Your task to perform on an android device: Go to network settings Image 0: 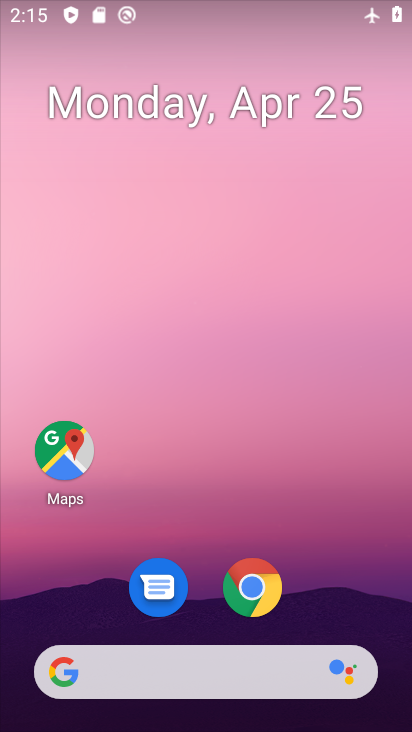
Step 0: click (292, 537)
Your task to perform on an android device: Go to network settings Image 1: 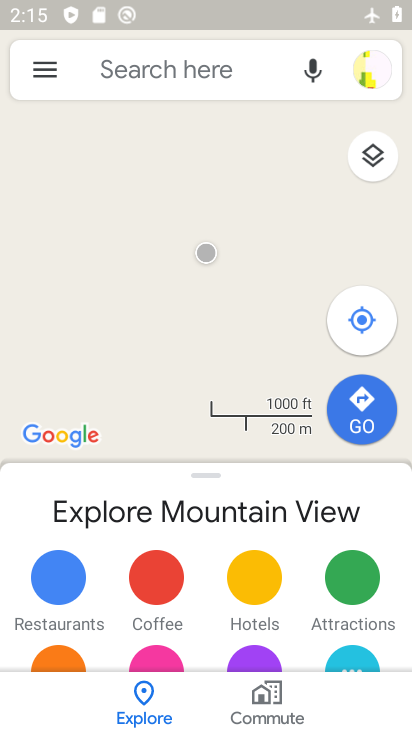
Step 1: drag from (304, 4) to (344, 484)
Your task to perform on an android device: Go to network settings Image 2: 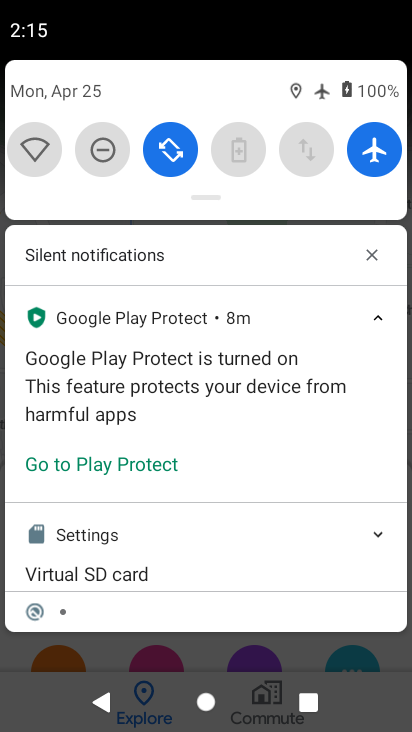
Step 2: click (368, 143)
Your task to perform on an android device: Go to network settings Image 3: 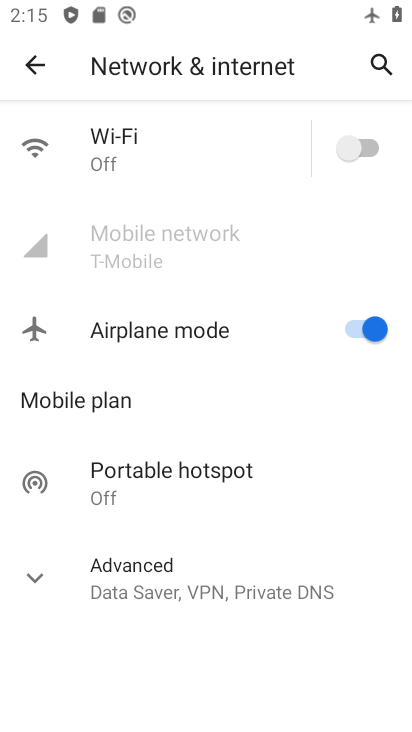
Step 3: task complete